Your task to perform on an android device: Open the Play Movies app and select the watchlist tab. Image 0: 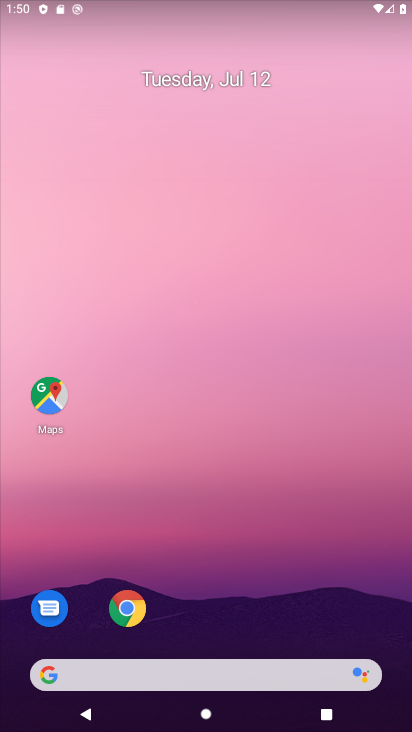
Step 0: drag from (304, 511) to (227, 92)
Your task to perform on an android device: Open the Play Movies app and select the watchlist tab. Image 1: 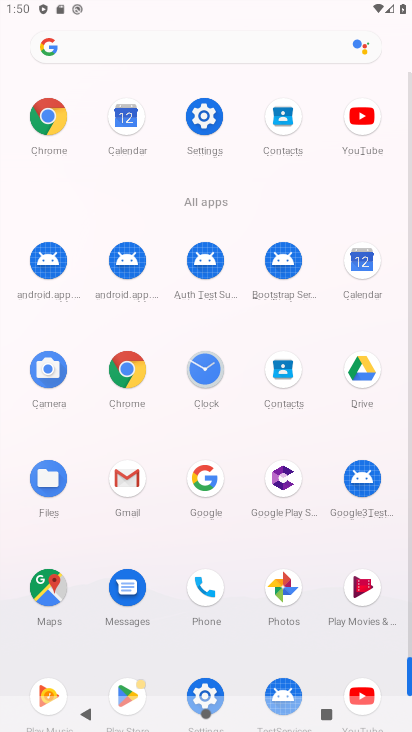
Step 1: click (366, 587)
Your task to perform on an android device: Open the Play Movies app and select the watchlist tab. Image 2: 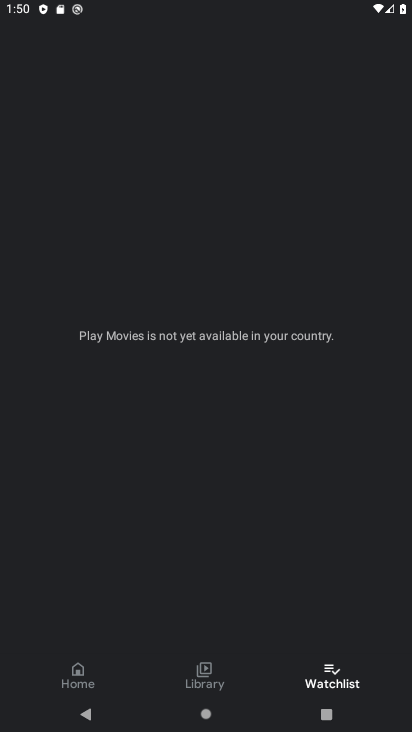
Step 2: task complete